Your task to perform on an android device: open sync settings in chrome Image 0: 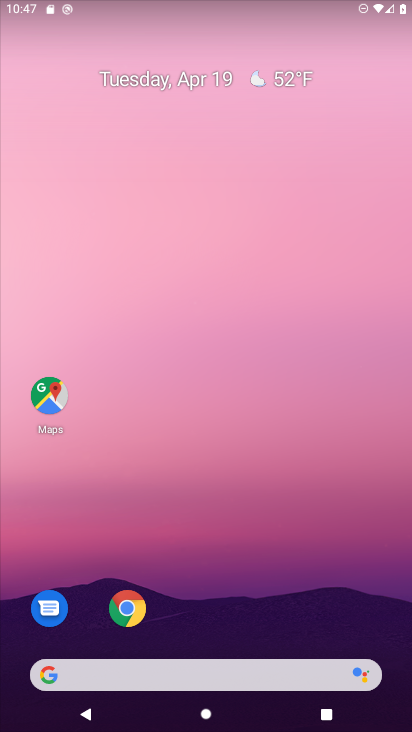
Step 0: drag from (305, 488) to (344, 154)
Your task to perform on an android device: open sync settings in chrome Image 1: 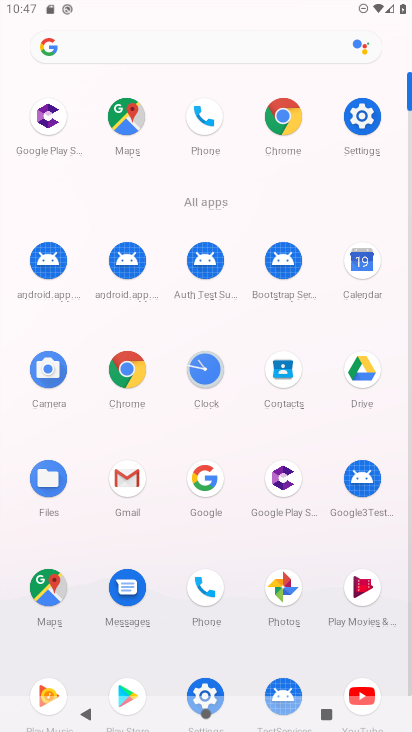
Step 1: click (298, 144)
Your task to perform on an android device: open sync settings in chrome Image 2: 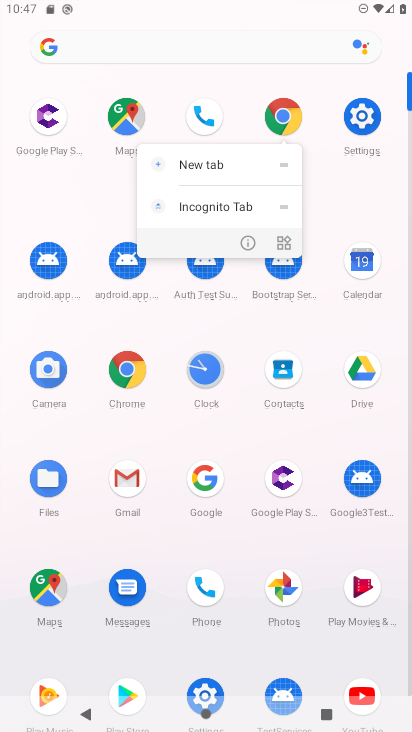
Step 2: click (292, 112)
Your task to perform on an android device: open sync settings in chrome Image 3: 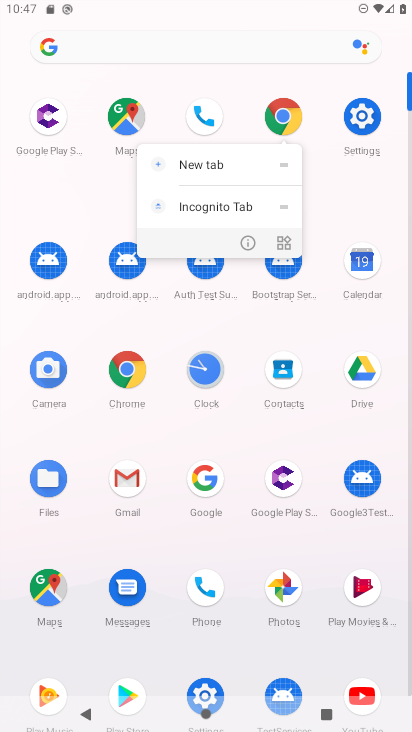
Step 3: click (292, 112)
Your task to perform on an android device: open sync settings in chrome Image 4: 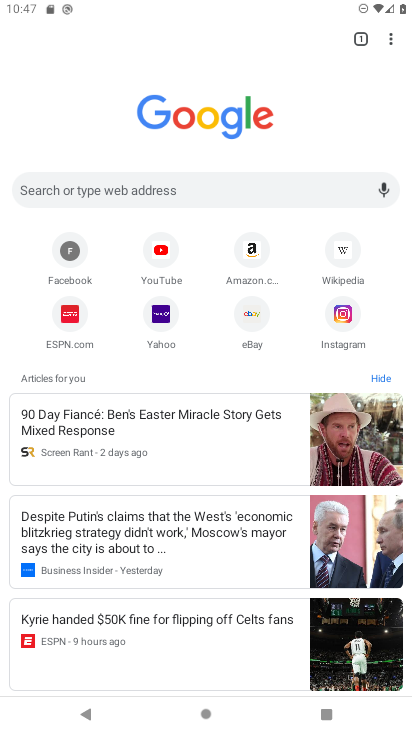
Step 4: drag from (403, 28) to (242, 340)
Your task to perform on an android device: open sync settings in chrome Image 5: 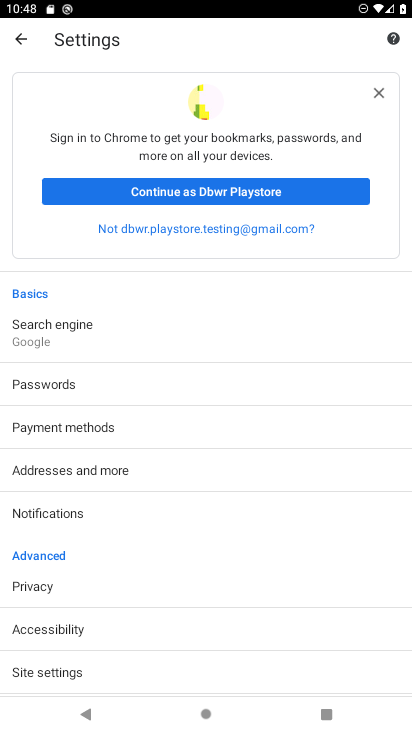
Step 5: click (121, 672)
Your task to perform on an android device: open sync settings in chrome Image 6: 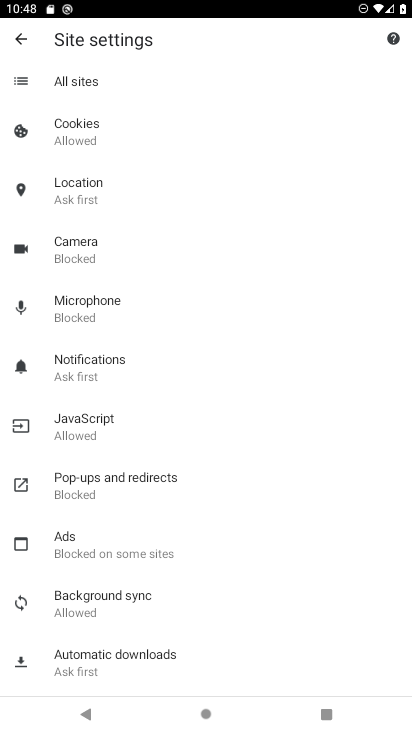
Step 6: click (103, 594)
Your task to perform on an android device: open sync settings in chrome Image 7: 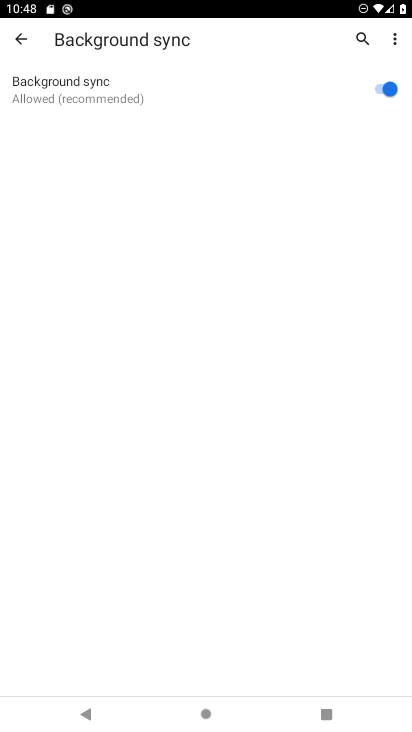
Step 7: task complete